Your task to perform on an android device: turn off javascript in the chrome app Image 0: 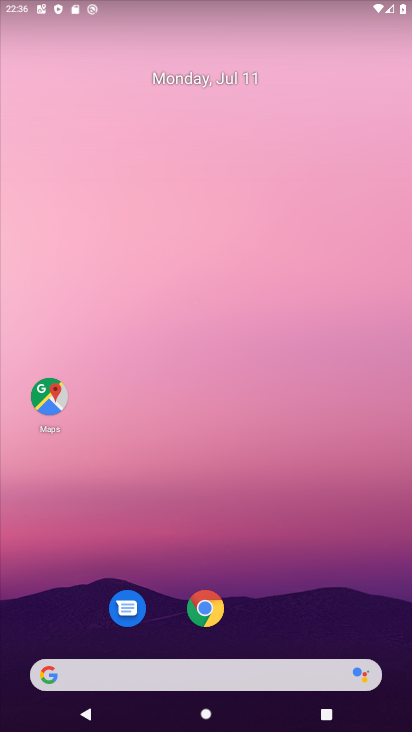
Step 0: click (202, 607)
Your task to perform on an android device: turn off javascript in the chrome app Image 1: 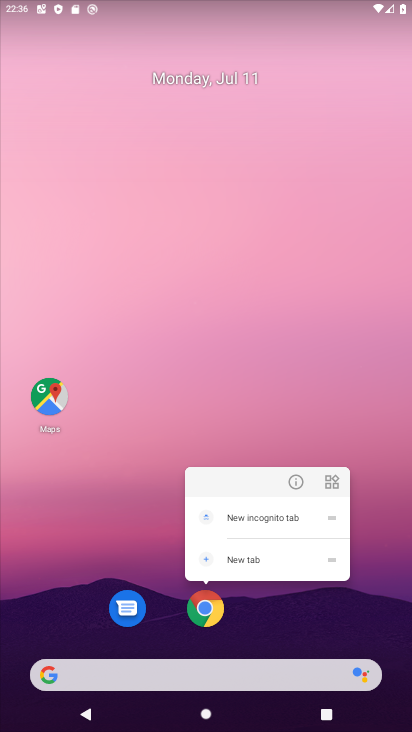
Step 1: click (202, 607)
Your task to perform on an android device: turn off javascript in the chrome app Image 2: 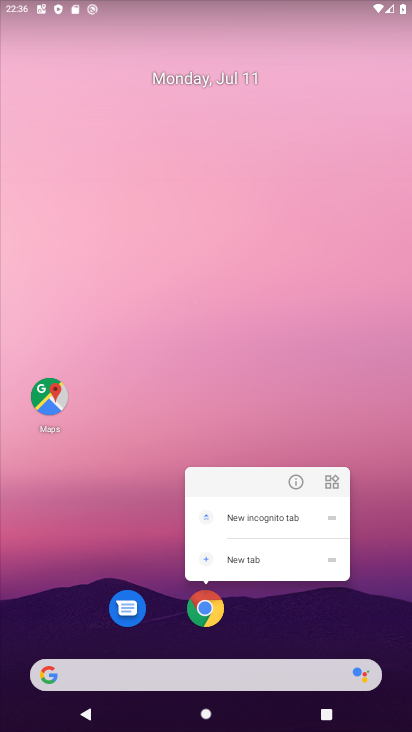
Step 2: click (212, 618)
Your task to perform on an android device: turn off javascript in the chrome app Image 3: 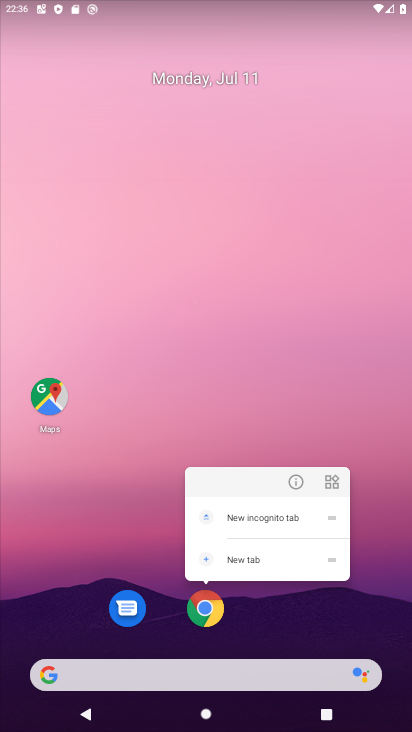
Step 3: click (201, 608)
Your task to perform on an android device: turn off javascript in the chrome app Image 4: 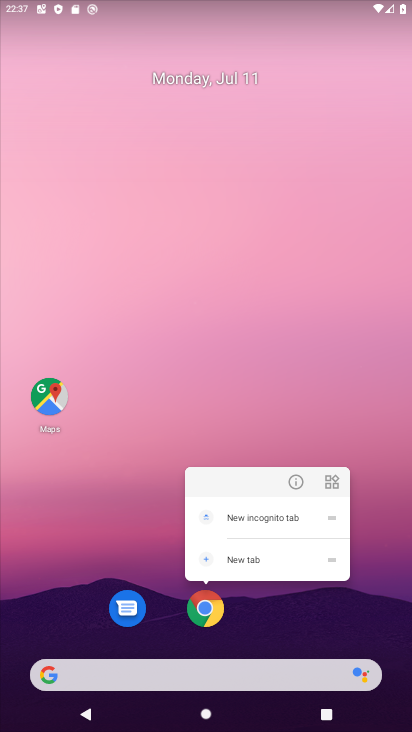
Step 4: click (216, 597)
Your task to perform on an android device: turn off javascript in the chrome app Image 5: 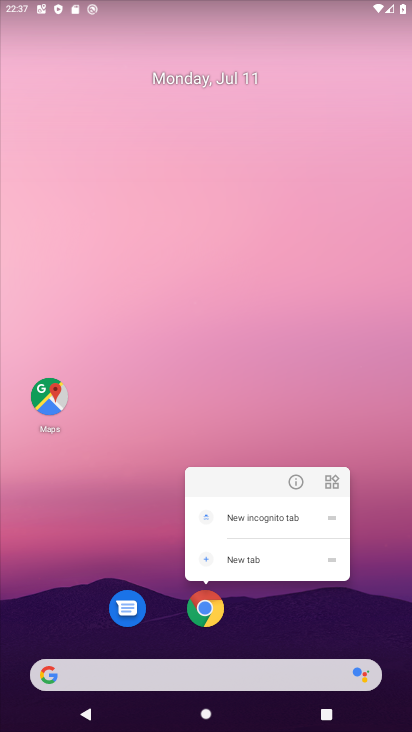
Step 5: click (212, 613)
Your task to perform on an android device: turn off javascript in the chrome app Image 6: 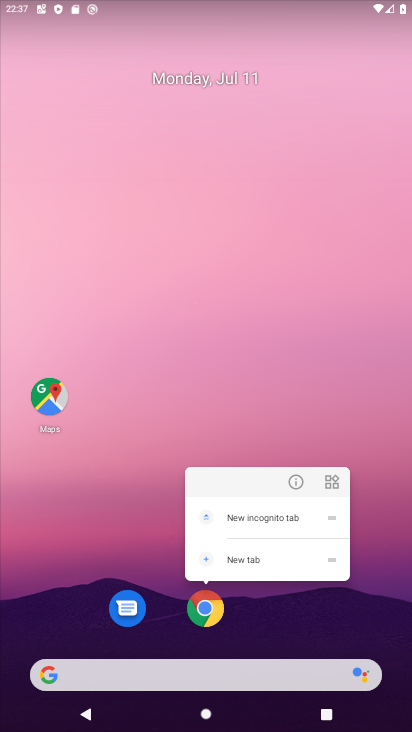
Step 6: task complete